Your task to perform on an android device: What's on my calendar tomorrow? Image 0: 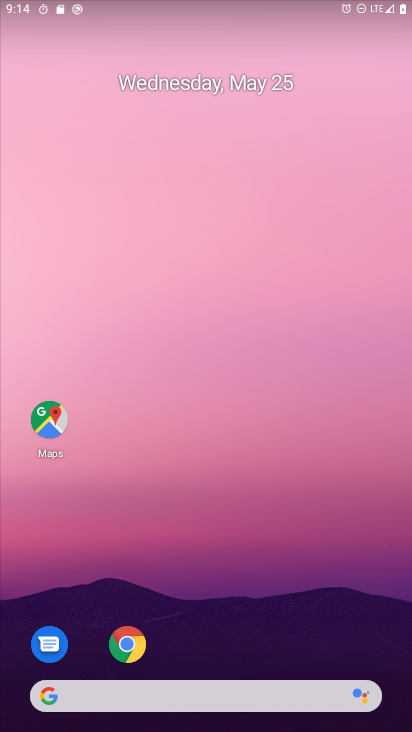
Step 0: drag from (373, 651) to (310, 81)
Your task to perform on an android device: What's on my calendar tomorrow? Image 1: 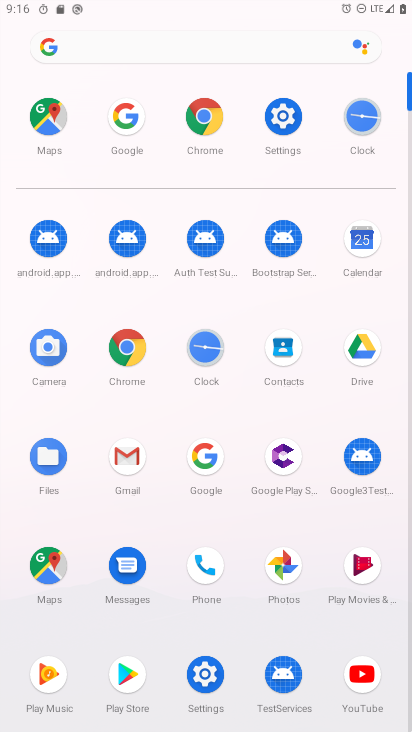
Step 1: click (350, 246)
Your task to perform on an android device: What's on my calendar tomorrow? Image 2: 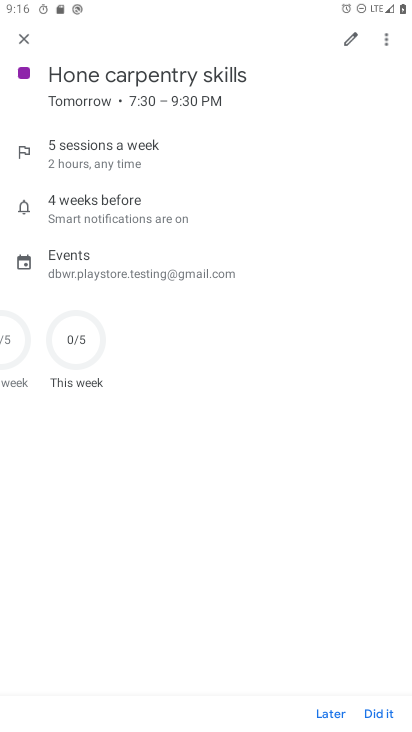
Step 2: press back button
Your task to perform on an android device: What's on my calendar tomorrow? Image 3: 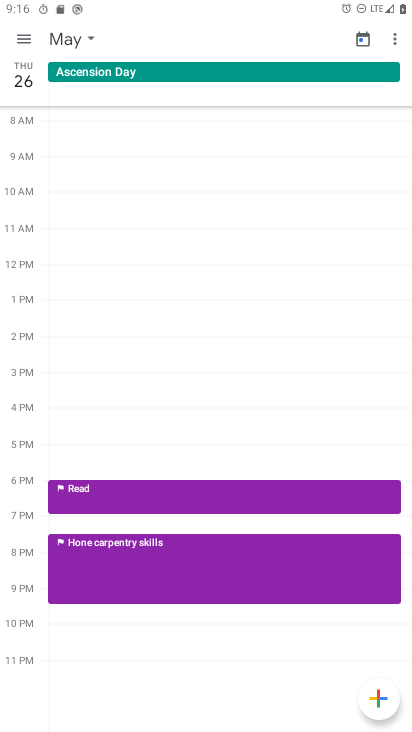
Step 3: click (75, 43)
Your task to perform on an android device: What's on my calendar tomorrow? Image 4: 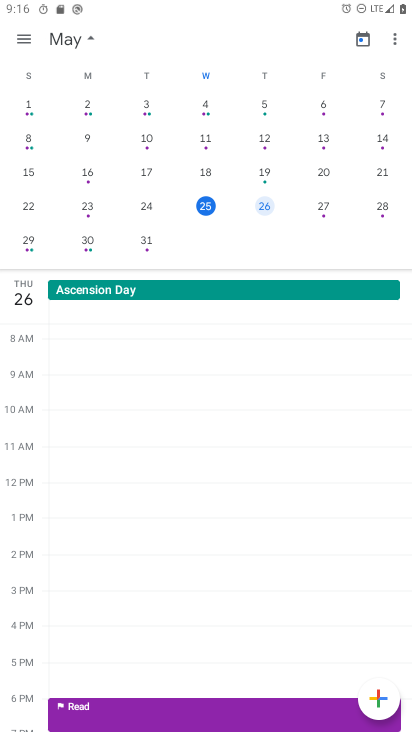
Step 4: click (326, 212)
Your task to perform on an android device: What's on my calendar tomorrow? Image 5: 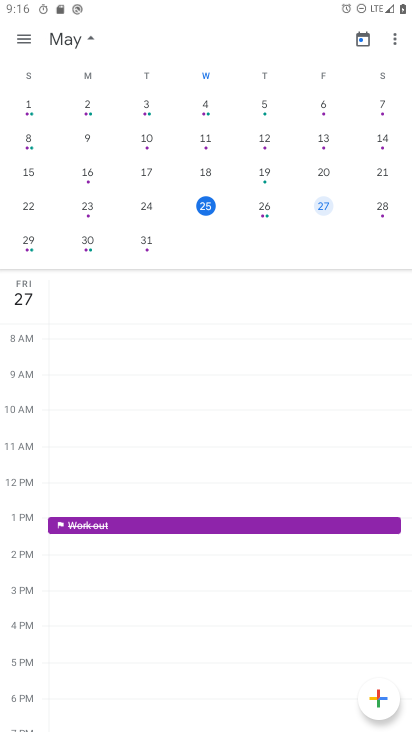
Step 5: task complete